Your task to perform on an android device: turn off notifications settings in the gmail app Image 0: 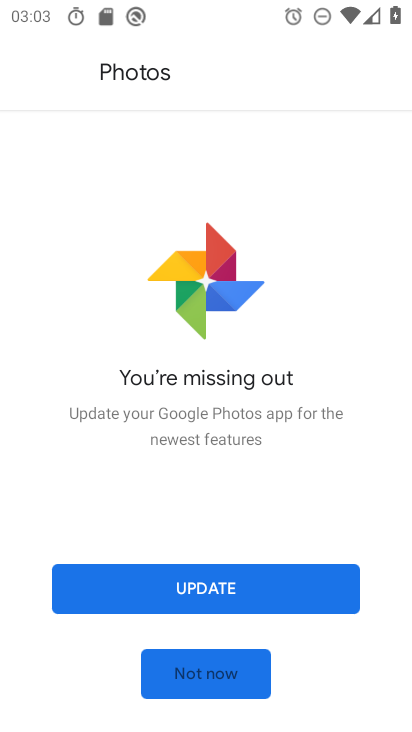
Step 0: press home button
Your task to perform on an android device: turn off notifications settings in the gmail app Image 1: 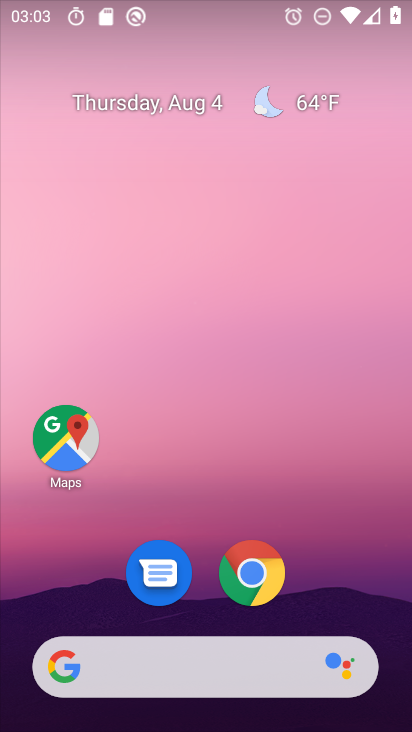
Step 1: drag from (343, 578) to (297, 60)
Your task to perform on an android device: turn off notifications settings in the gmail app Image 2: 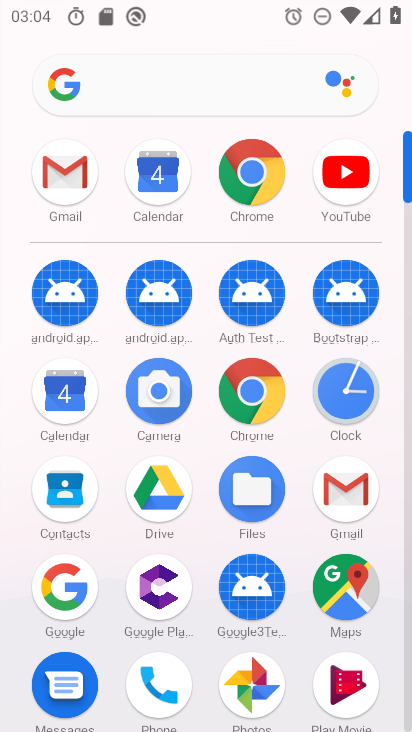
Step 2: click (341, 491)
Your task to perform on an android device: turn off notifications settings in the gmail app Image 3: 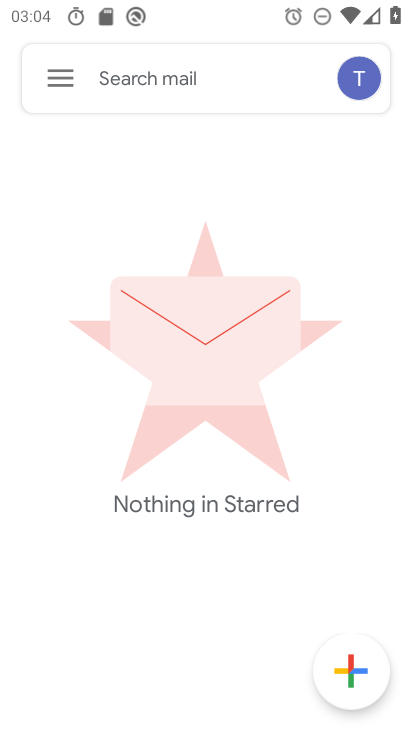
Step 3: click (46, 65)
Your task to perform on an android device: turn off notifications settings in the gmail app Image 4: 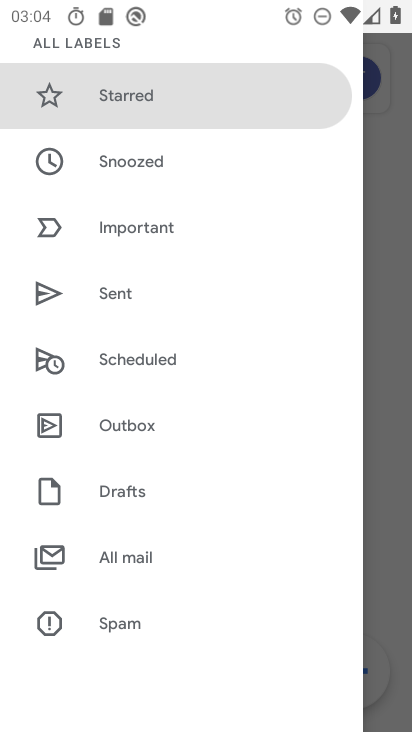
Step 4: drag from (170, 595) to (171, 120)
Your task to perform on an android device: turn off notifications settings in the gmail app Image 5: 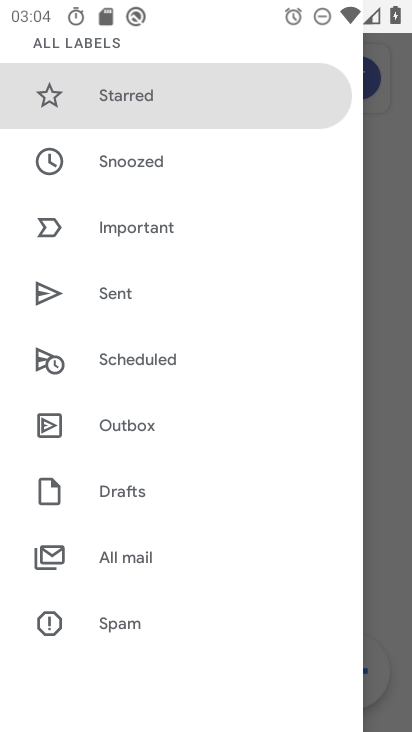
Step 5: drag from (113, 593) to (173, 156)
Your task to perform on an android device: turn off notifications settings in the gmail app Image 6: 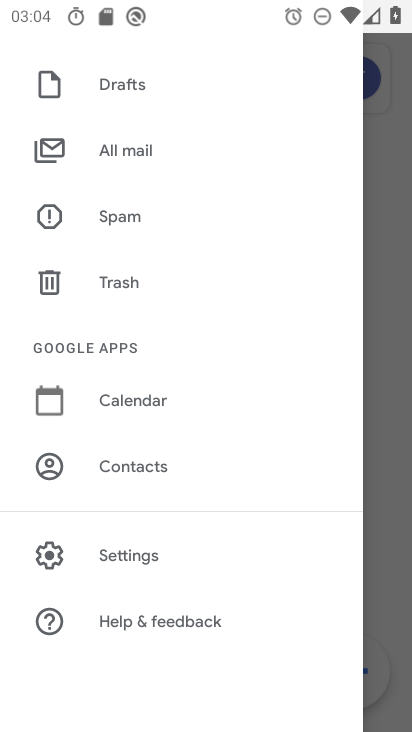
Step 6: click (141, 561)
Your task to perform on an android device: turn off notifications settings in the gmail app Image 7: 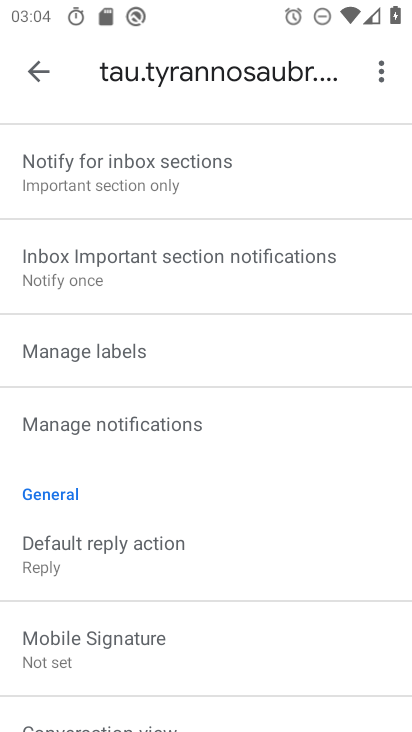
Step 7: click (162, 432)
Your task to perform on an android device: turn off notifications settings in the gmail app Image 8: 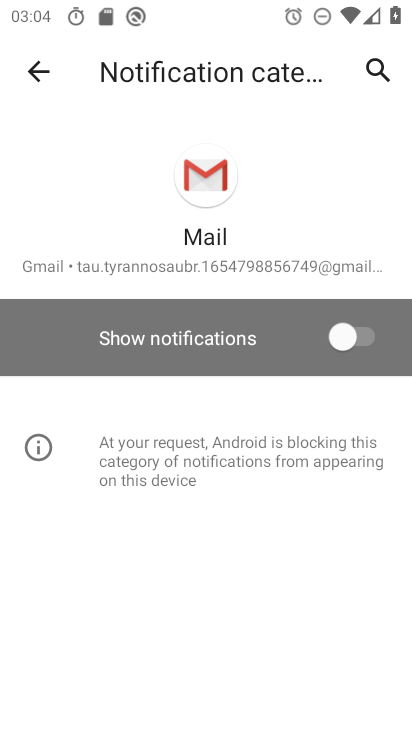
Step 8: task complete